Your task to perform on an android device: turn smart compose on in the gmail app Image 0: 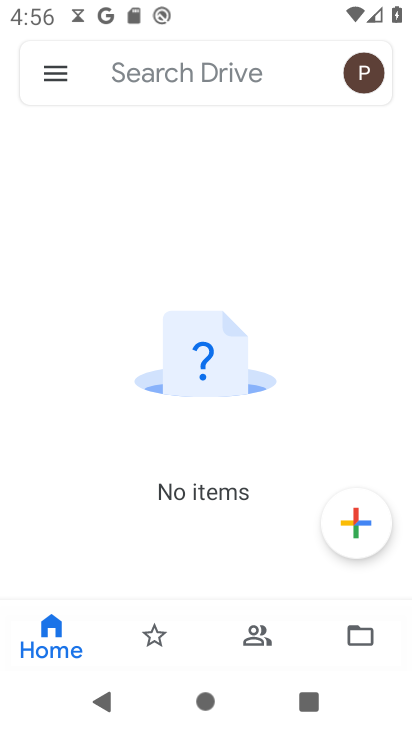
Step 0: press home button
Your task to perform on an android device: turn smart compose on in the gmail app Image 1: 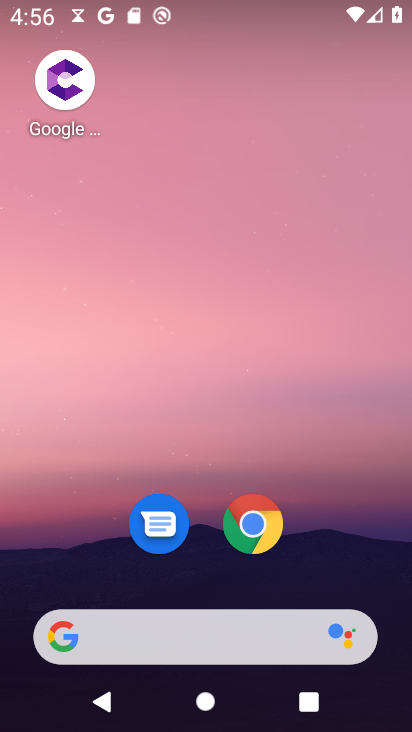
Step 1: drag from (205, 609) to (195, 8)
Your task to perform on an android device: turn smart compose on in the gmail app Image 2: 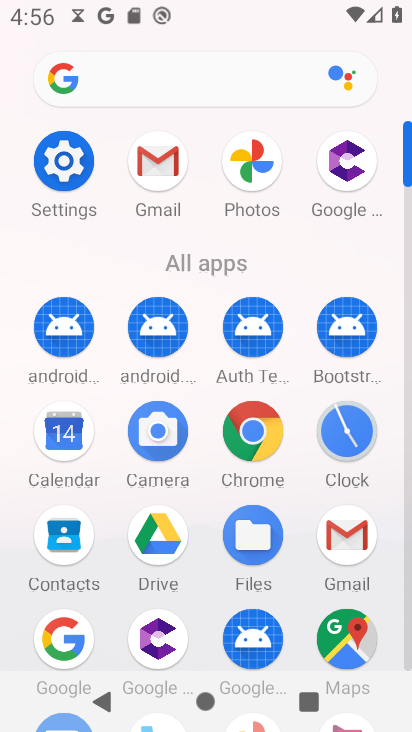
Step 2: click (162, 155)
Your task to perform on an android device: turn smart compose on in the gmail app Image 3: 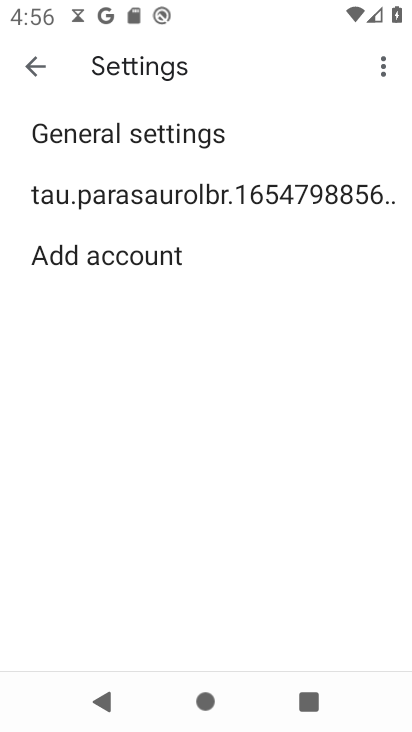
Step 3: click (87, 203)
Your task to perform on an android device: turn smart compose on in the gmail app Image 4: 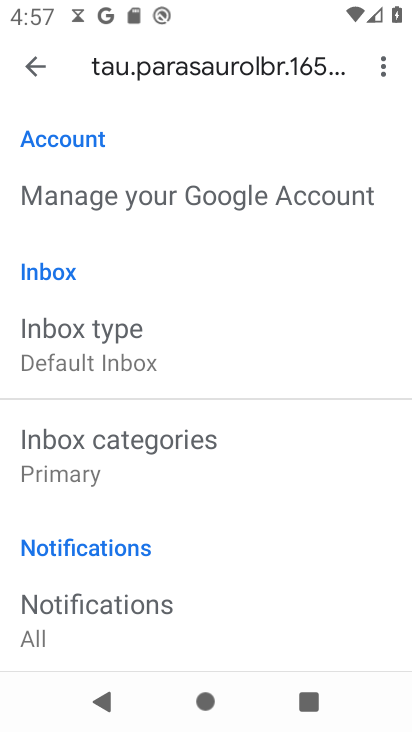
Step 4: task complete